Your task to perform on an android device: delete the emails in spam in the gmail app Image 0: 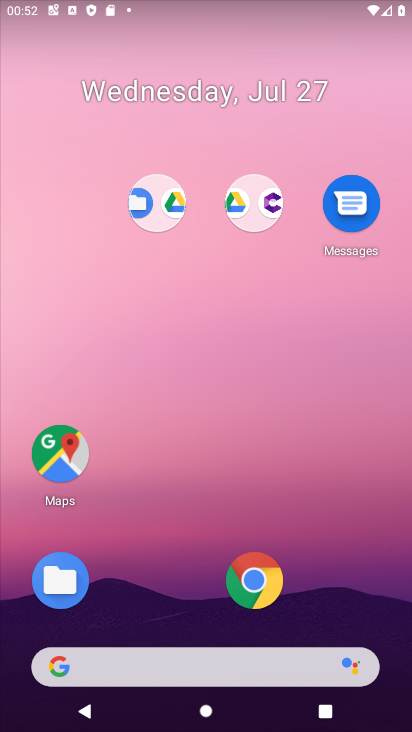
Step 0: drag from (157, 554) to (253, 82)
Your task to perform on an android device: delete the emails in spam in the gmail app Image 1: 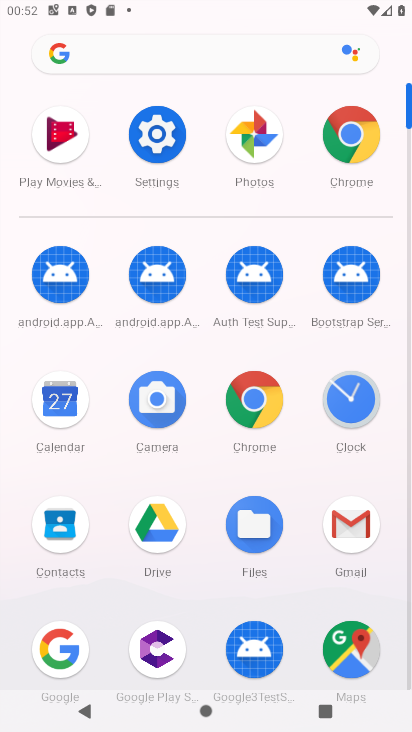
Step 1: click (353, 531)
Your task to perform on an android device: delete the emails in spam in the gmail app Image 2: 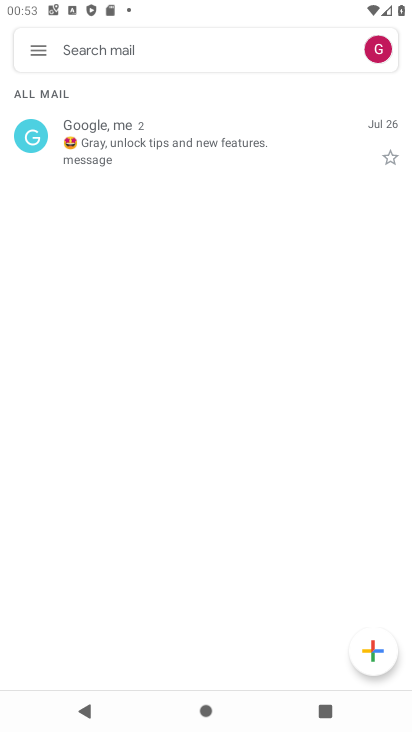
Step 2: click (36, 63)
Your task to perform on an android device: delete the emails in spam in the gmail app Image 3: 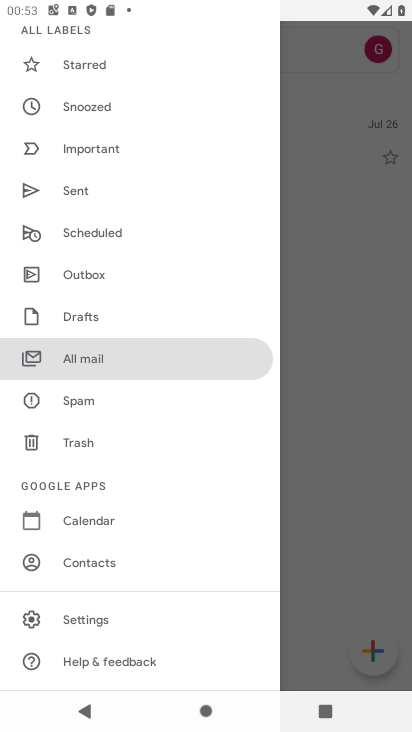
Step 3: click (65, 400)
Your task to perform on an android device: delete the emails in spam in the gmail app Image 4: 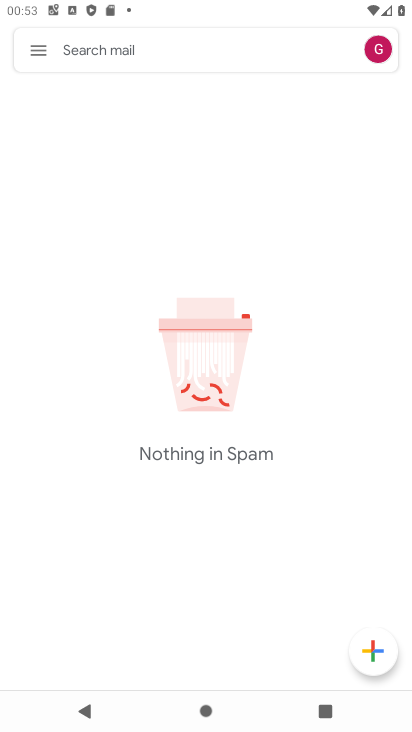
Step 4: task complete